Your task to perform on an android device: turn off notifications settings in the gmail app Image 0: 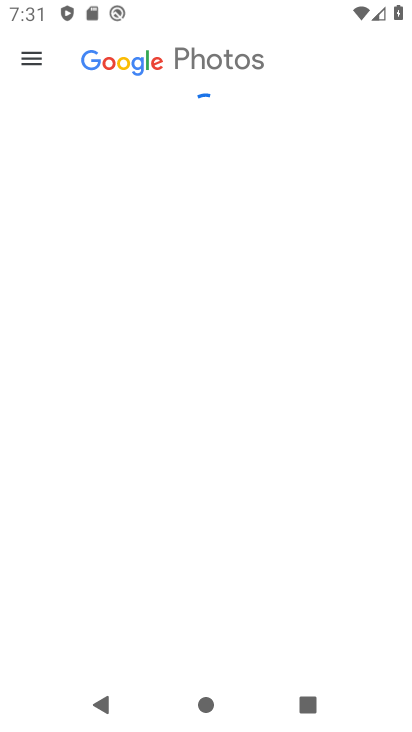
Step 0: press home button
Your task to perform on an android device: turn off notifications settings in the gmail app Image 1: 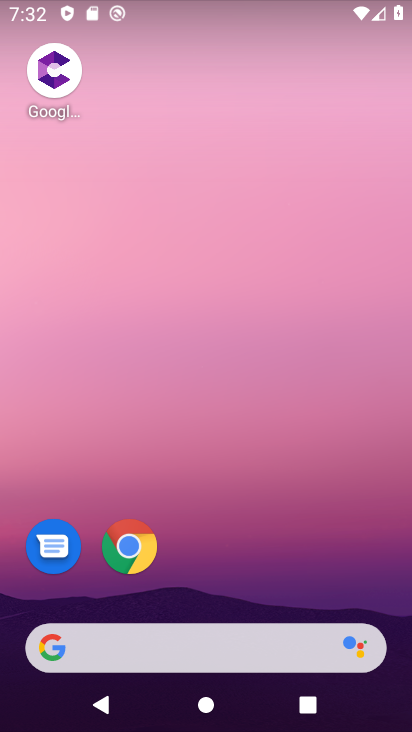
Step 1: drag from (195, 576) to (104, 113)
Your task to perform on an android device: turn off notifications settings in the gmail app Image 2: 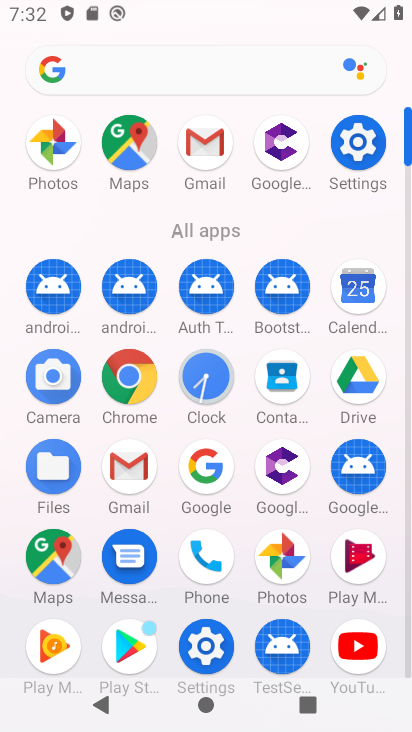
Step 2: click (203, 155)
Your task to perform on an android device: turn off notifications settings in the gmail app Image 3: 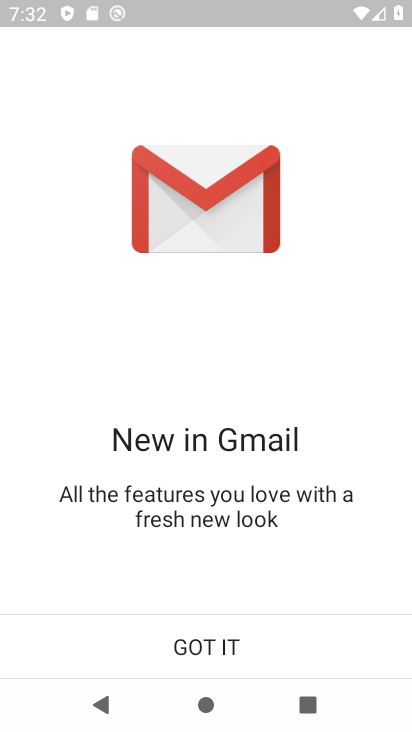
Step 3: click (223, 657)
Your task to perform on an android device: turn off notifications settings in the gmail app Image 4: 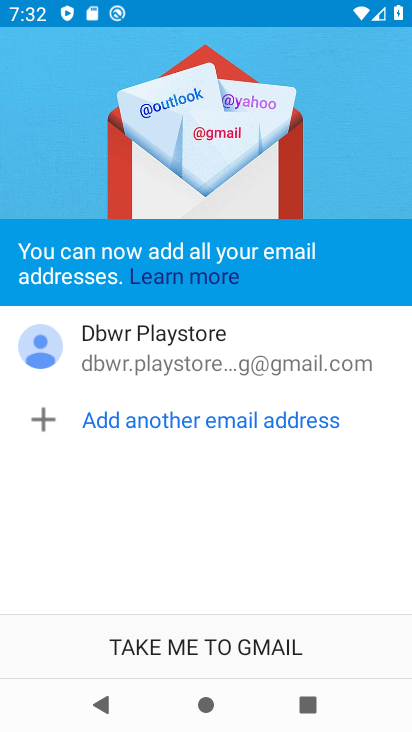
Step 4: click (222, 656)
Your task to perform on an android device: turn off notifications settings in the gmail app Image 5: 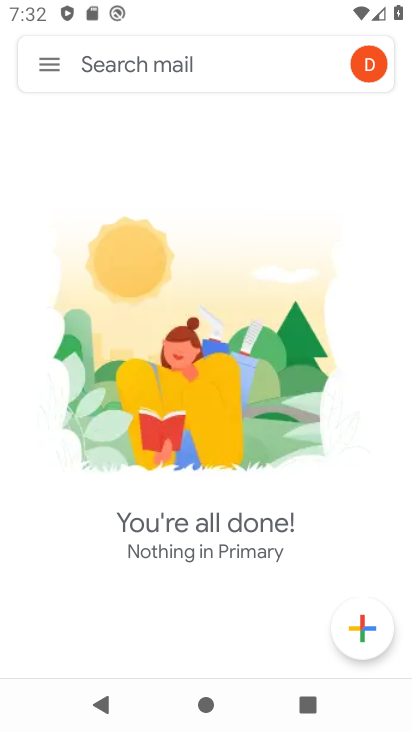
Step 5: click (52, 66)
Your task to perform on an android device: turn off notifications settings in the gmail app Image 6: 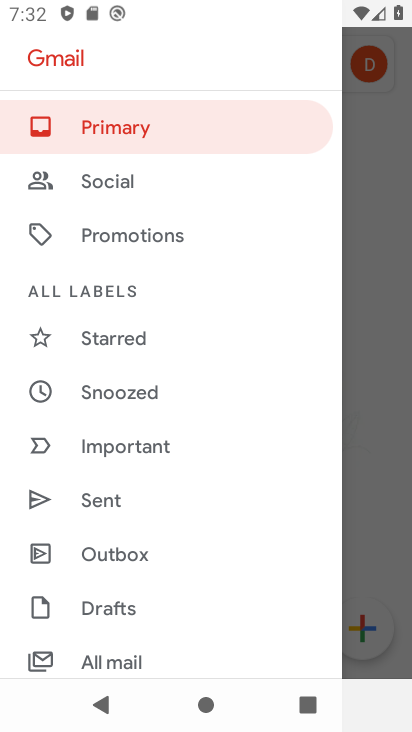
Step 6: drag from (158, 612) to (131, 381)
Your task to perform on an android device: turn off notifications settings in the gmail app Image 7: 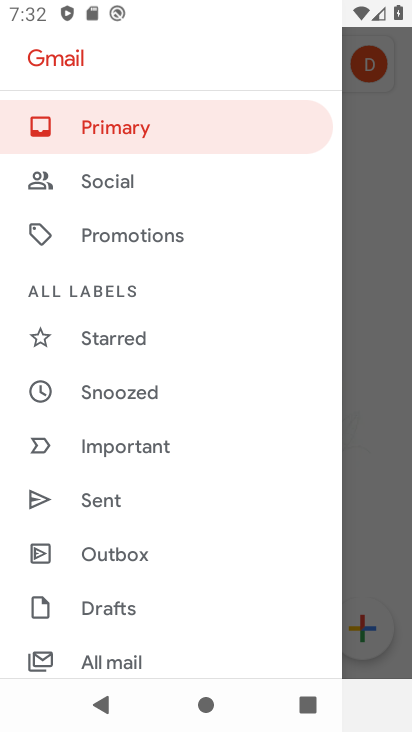
Step 7: drag from (124, 584) to (164, 127)
Your task to perform on an android device: turn off notifications settings in the gmail app Image 8: 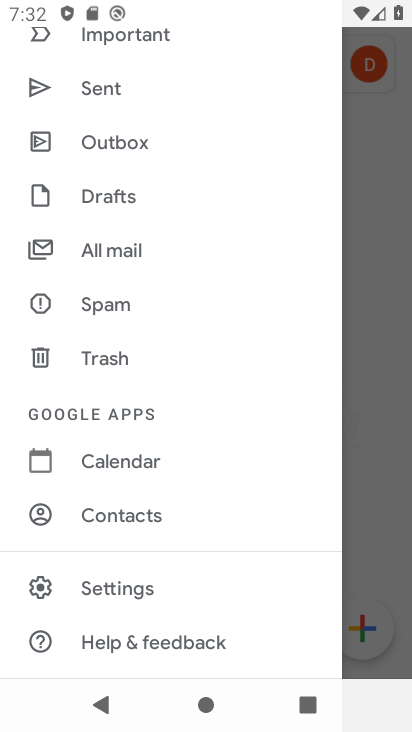
Step 8: click (145, 589)
Your task to perform on an android device: turn off notifications settings in the gmail app Image 9: 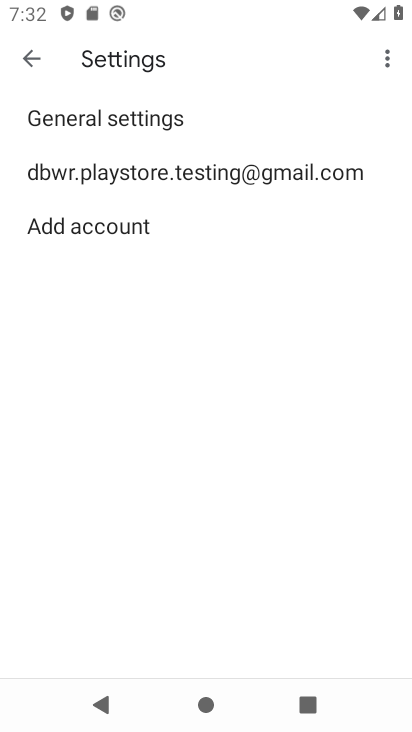
Step 9: click (113, 172)
Your task to perform on an android device: turn off notifications settings in the gmail app Image 10: 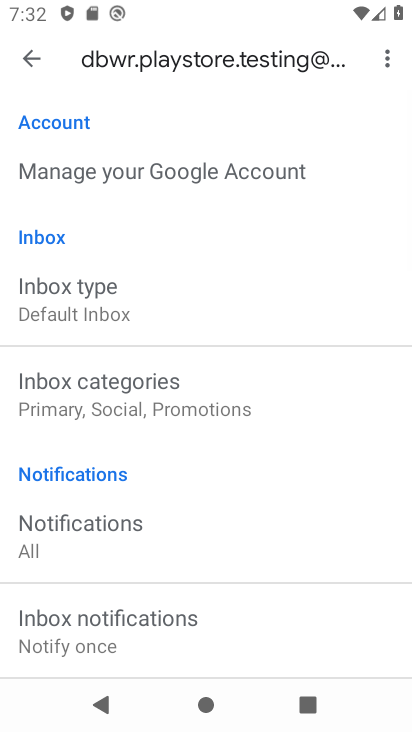
Step 10: click (64, 556)
Your task to perform on an android device: turn off notifications settings in the gmail app Image 11: 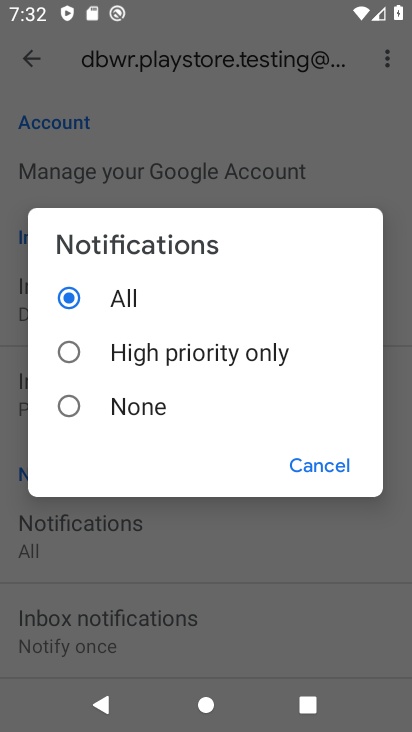
Step 11: click (70, 409)
Your task to perform on an android device: turn off notifications settings in the gmail app Image 12: 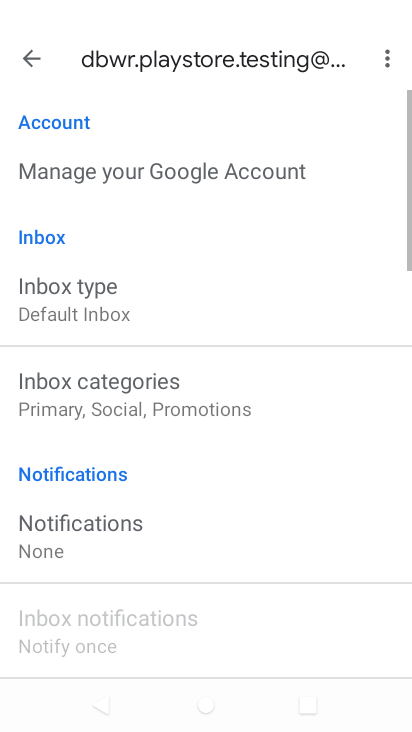
Step 12: drag from (207, 585) to (183, 348)
Your task to perform on an android device: turn off notifications settings in the gmail app Image 13: 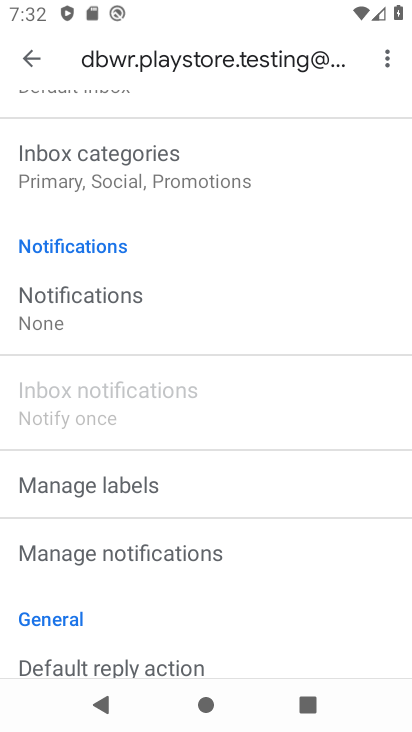
Step 13: click (130, 572)
Your task to perform on an android device: turn off notifications settings in the gmail app Image 14: 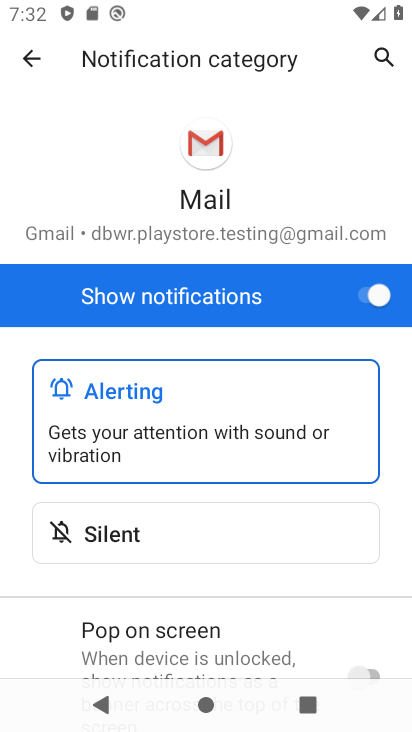
Step 14: click (365, 297)
Your task to perform on an android device: turn off notifications settings in the gmail app Image 15: 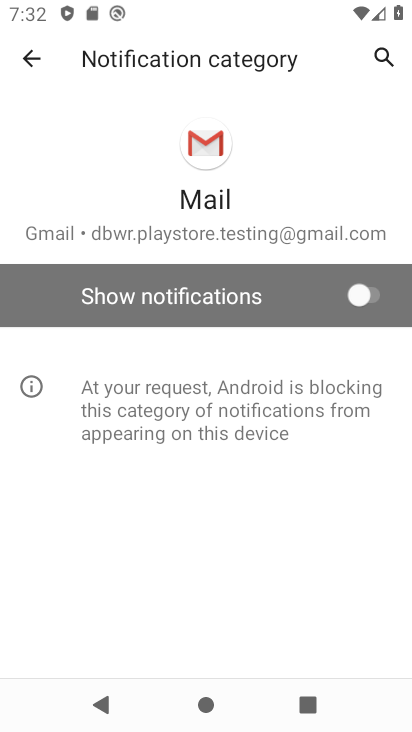
Step 15: task complete